Your task to perform on an android device: Search for "jbl flip 4" on newegg, select the first entry, add it to the cart, then select checkout. Image 0: 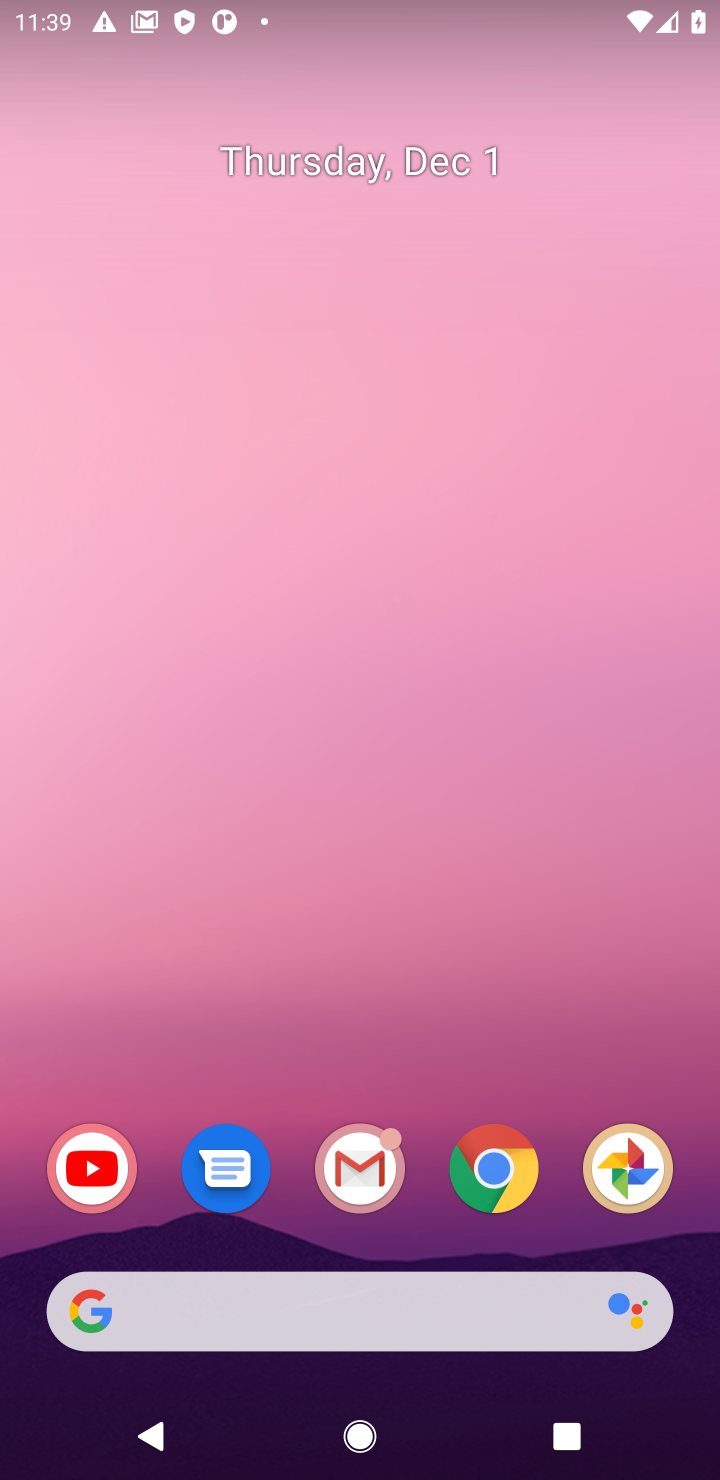
Step 0: click (486, 1181)
Your task to perform on an android device: Search for "jbl flip 4" on newegg, select the first entry, add it to the cart, then select checkout. Image 1: 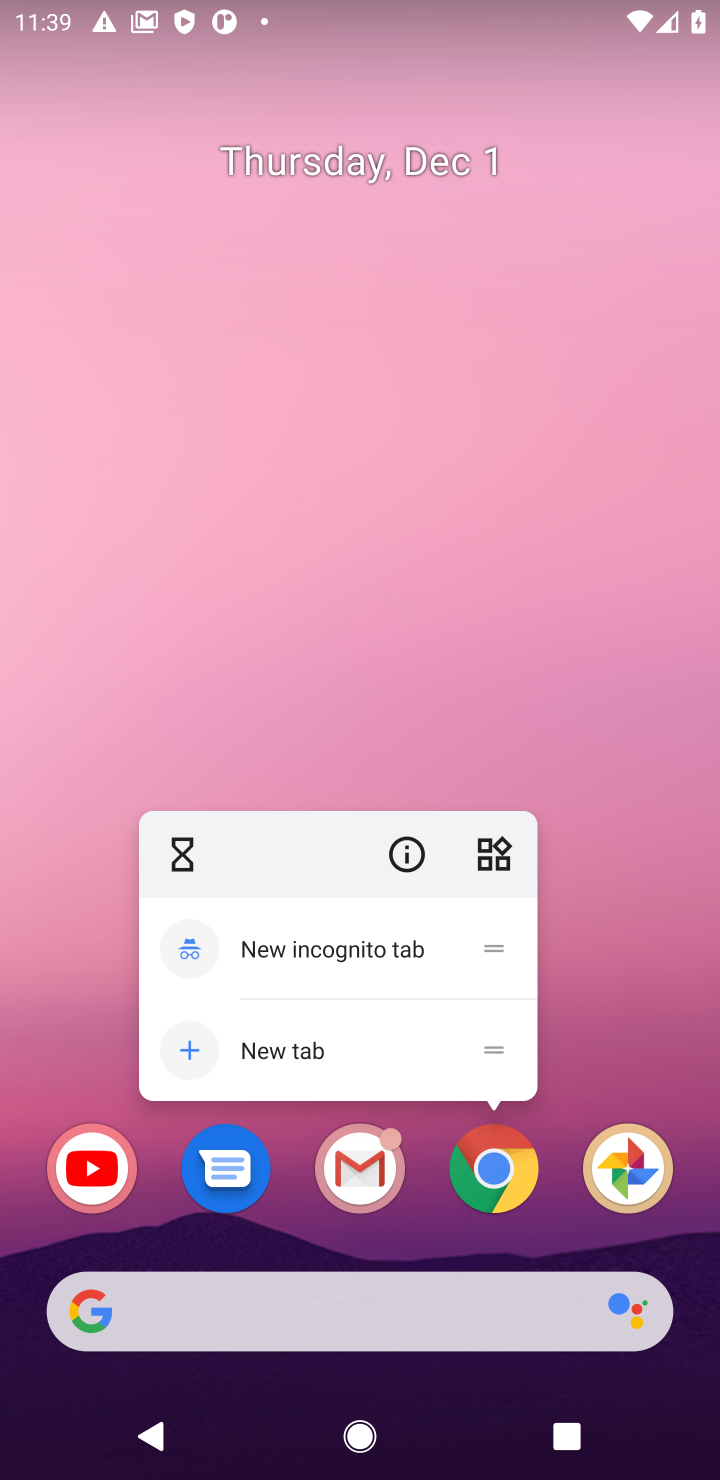
Step 1: click (486, 1181)
Your task to perform on an android device: Search for "jbl flip 4" on newegg, select the first entry, add it to the cart, then select checkout. Image 2: 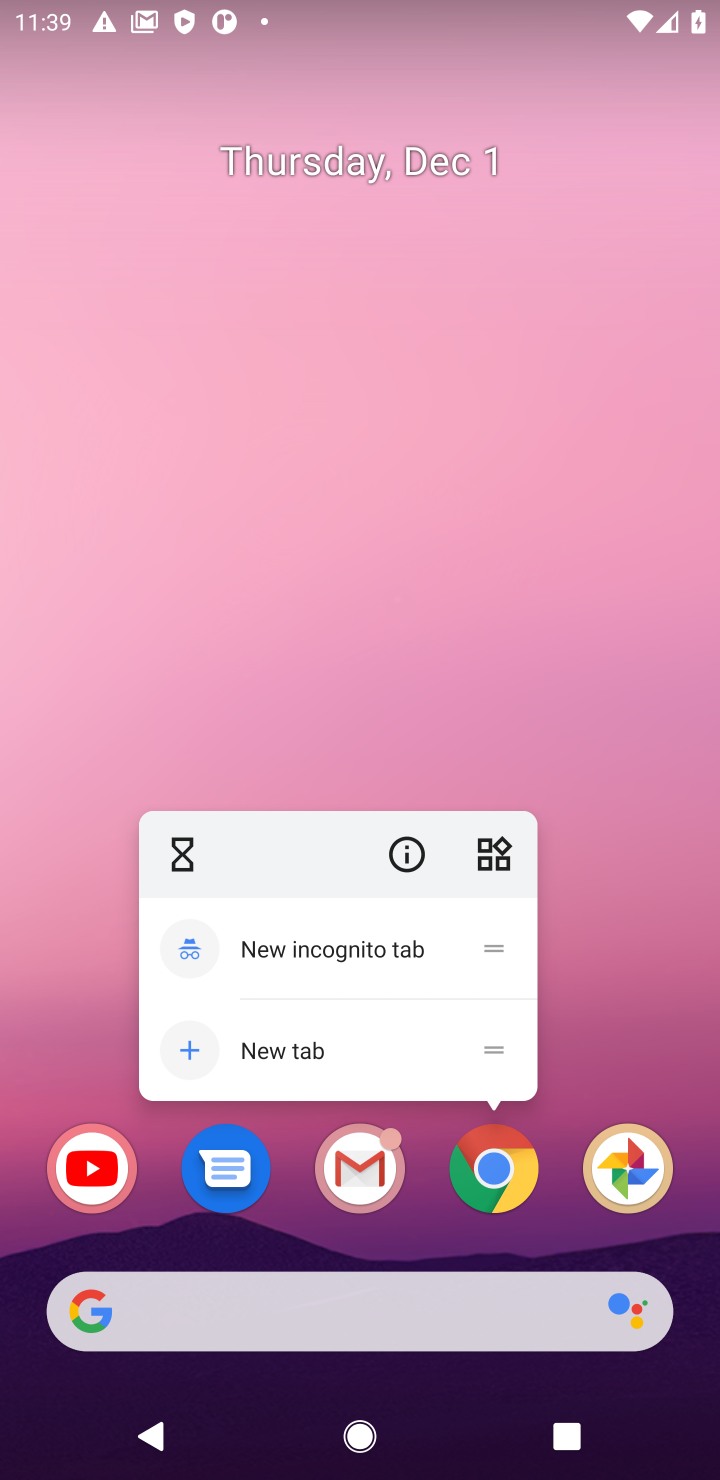
Step 2: click (489, 1172)
Your task to perform on an android device: Search for "jbl flip 4" on newegg, select the first entry, add it to the cart, then select checkout. Image 3: 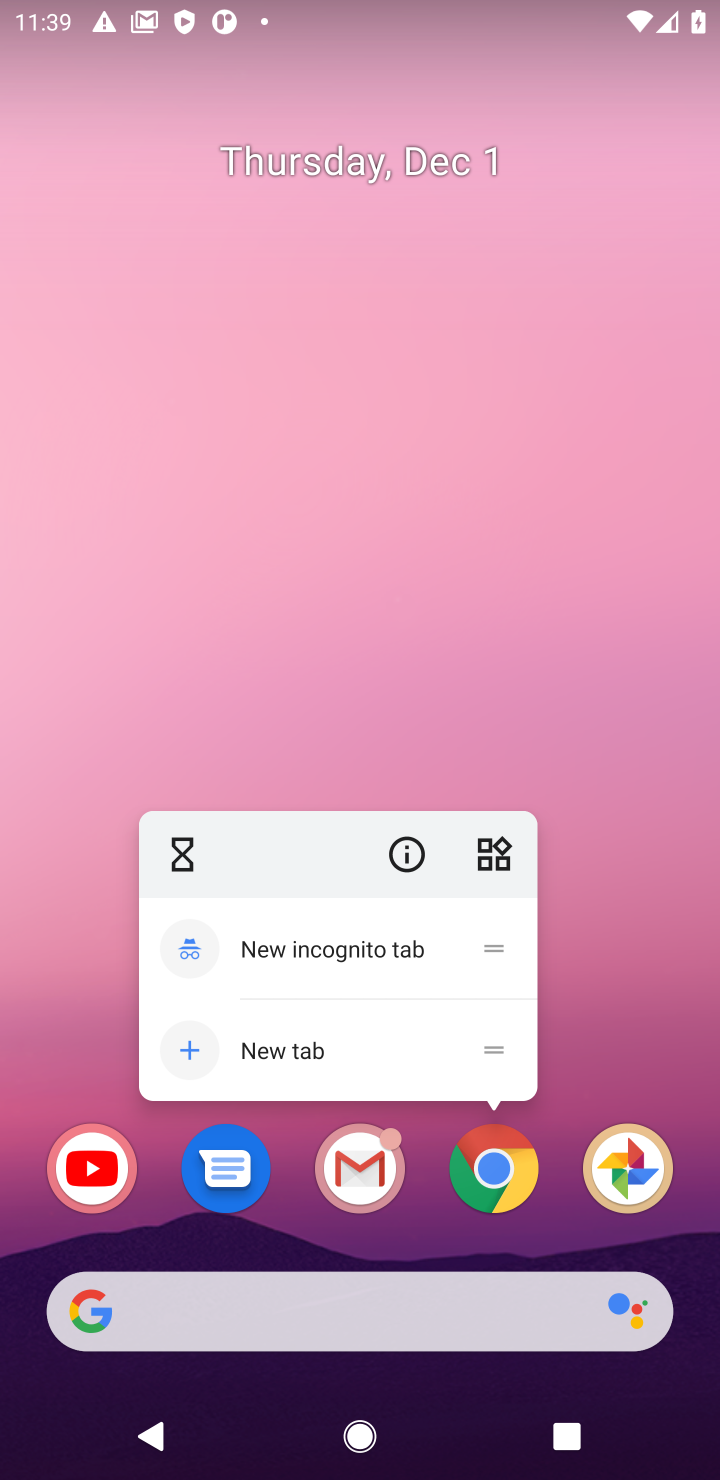
Step 3: click (489, 1172)
Your task to perform on an android device: Search for "jbl flip 4" on newegg, select the first entry, add it to the cart, then select checkout. Image 4: 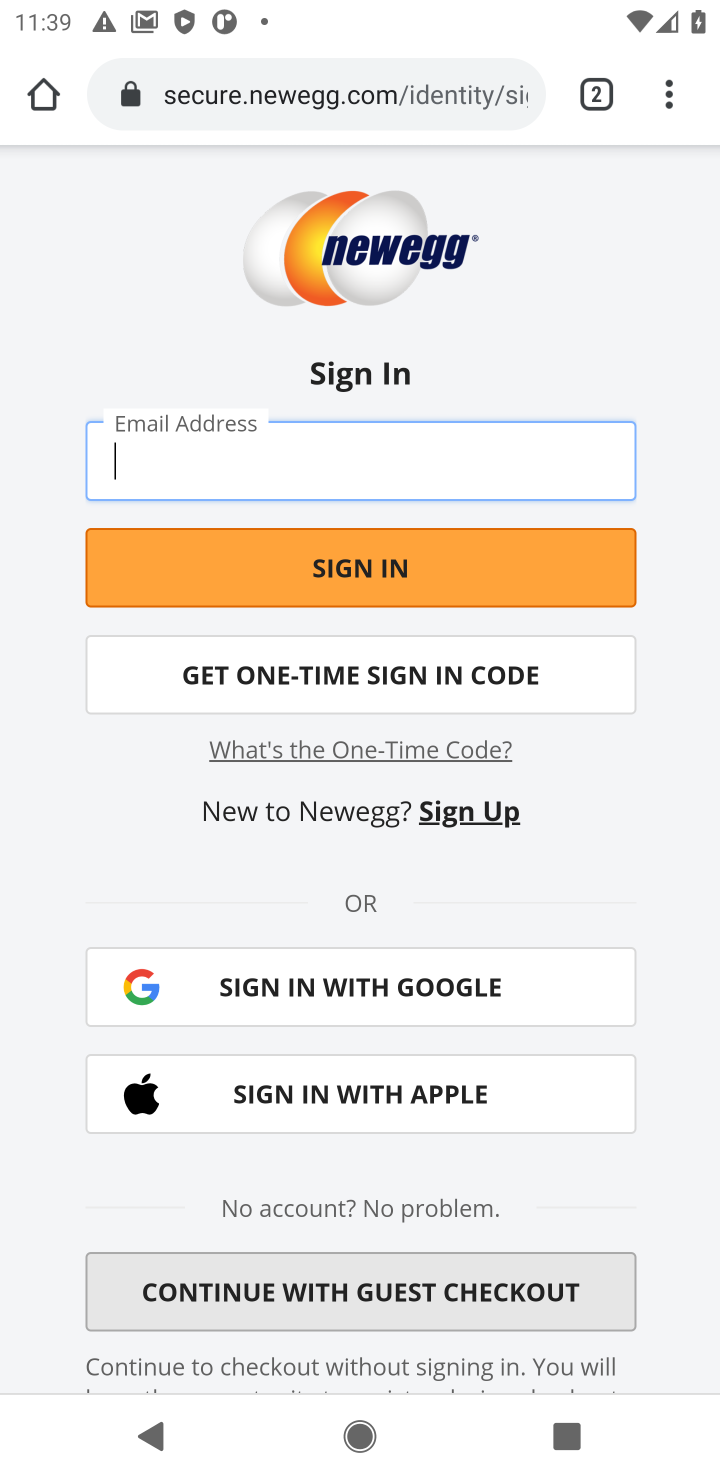
Step 4: press back button
Your task to perform on an android device: Search for "jbl flip 4" on newegg, select the first entry, add it to the cart, then select checkout. Image 5: 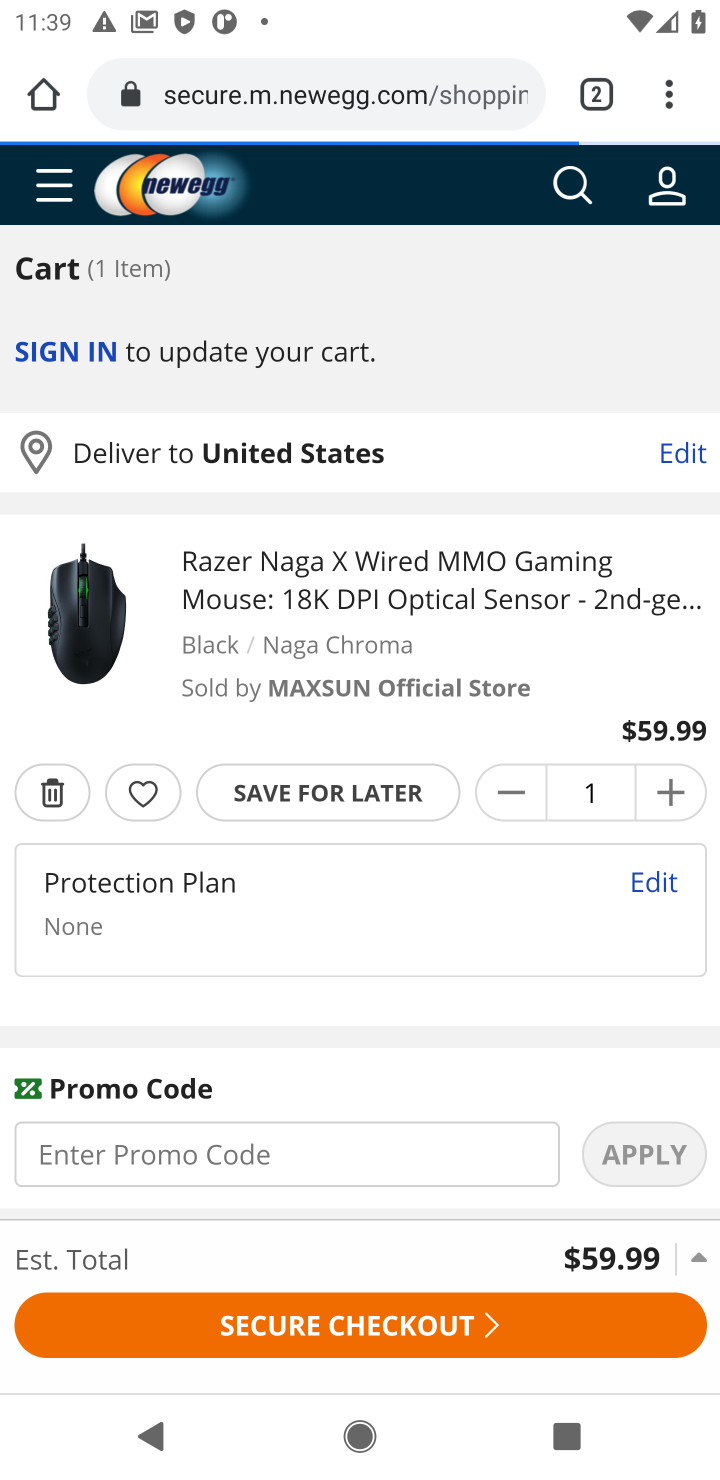
Step 5: click (575, 176)
Your task to perform on an android device: Search for "jbl flip 4" on newegg, select the first entry, add it to the cart, then select checkout. Image 6: 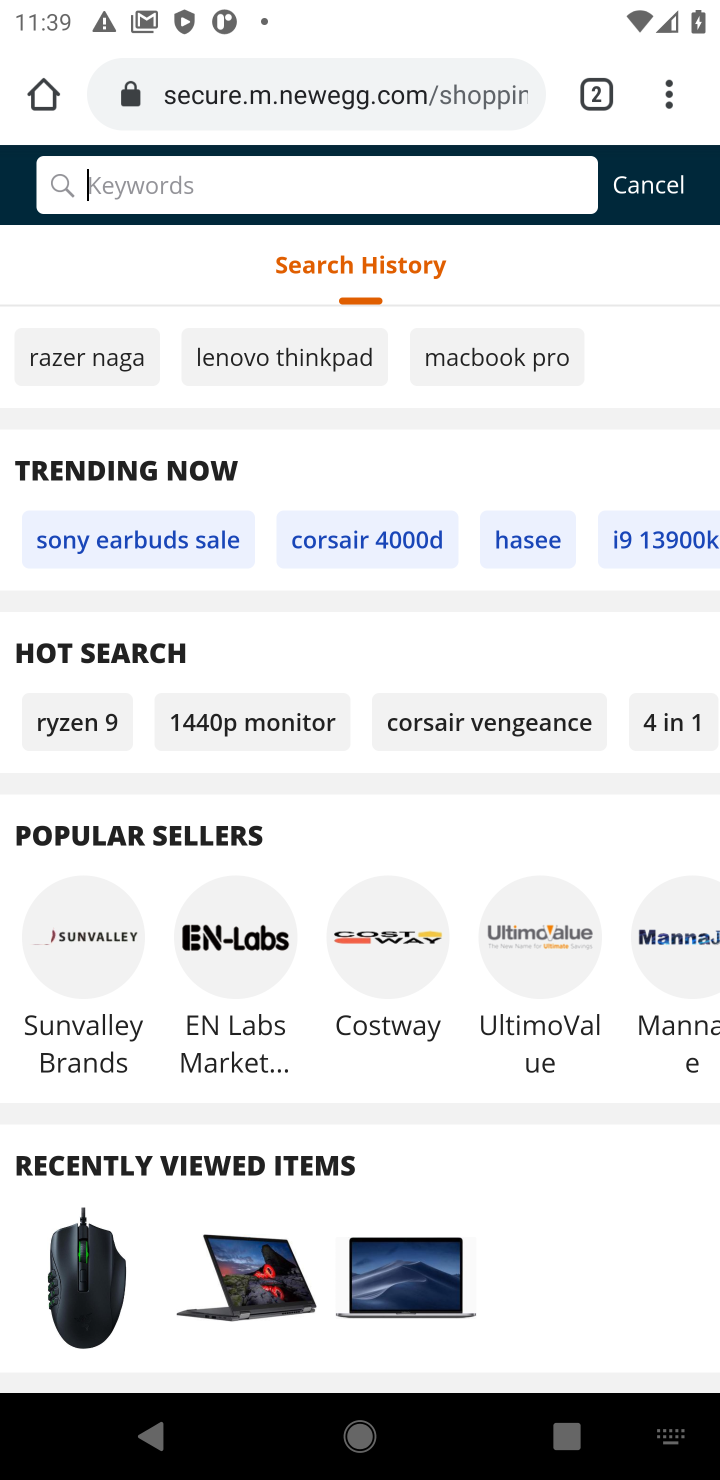
Step 6: type "jbl flip 4"
Your task to perform on an android device: Search for "jbl flip 4" on newegg, select the first entry, add it to the cart, then select checkout. Image 7: 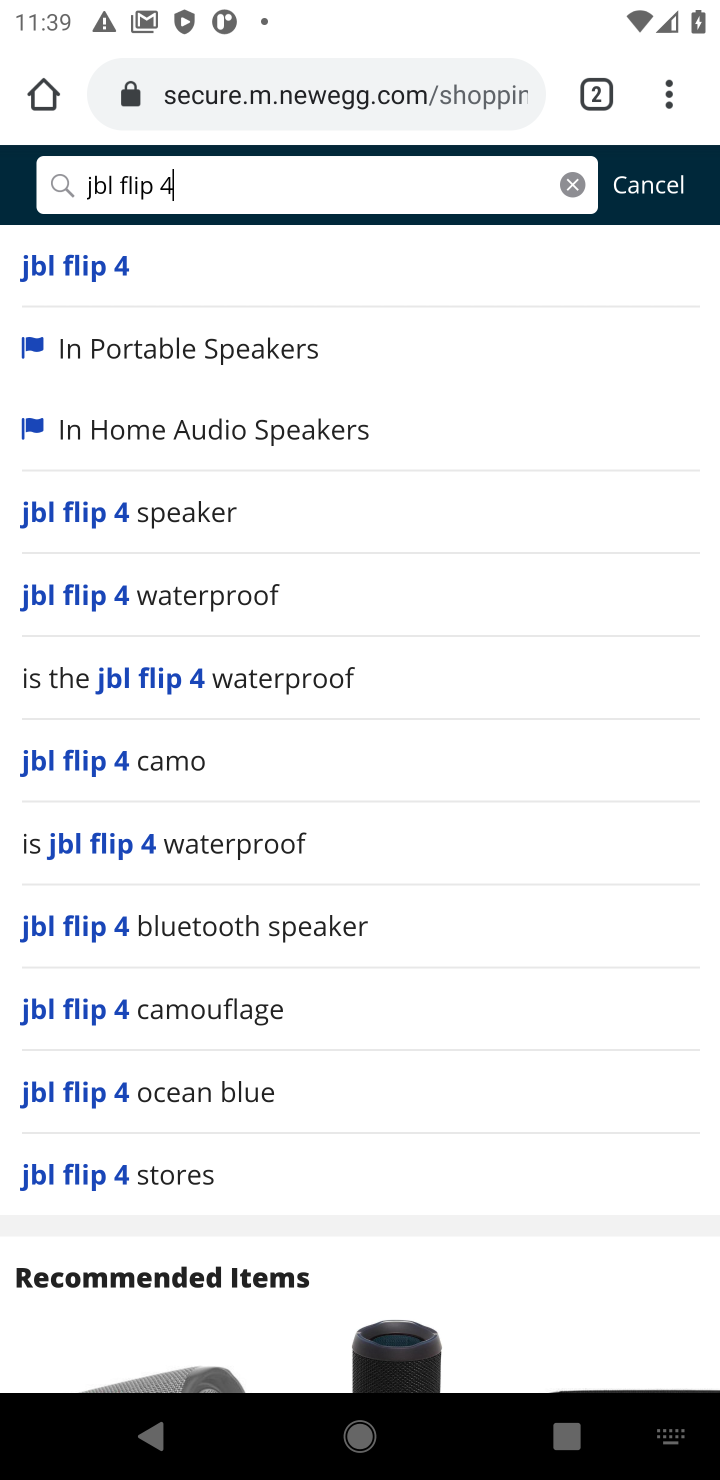
Step 7: click (36, 272)
Your task to perform on an android device: Search for "jbl flip 4" on newegg, select the first entry, add it to the cart, then select checkout. Image 8: 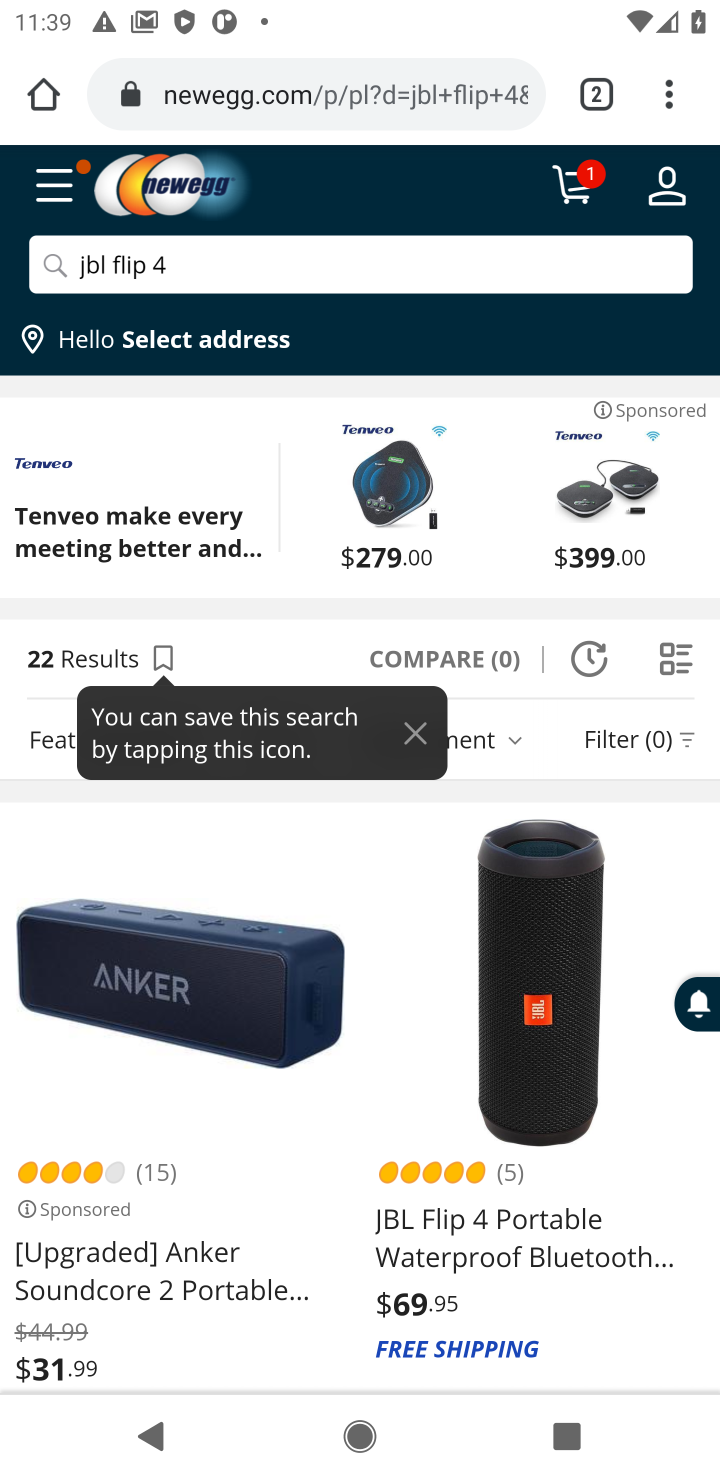
Step 8: task complete